Your task to perform on an android device: change the clock style Image 0: 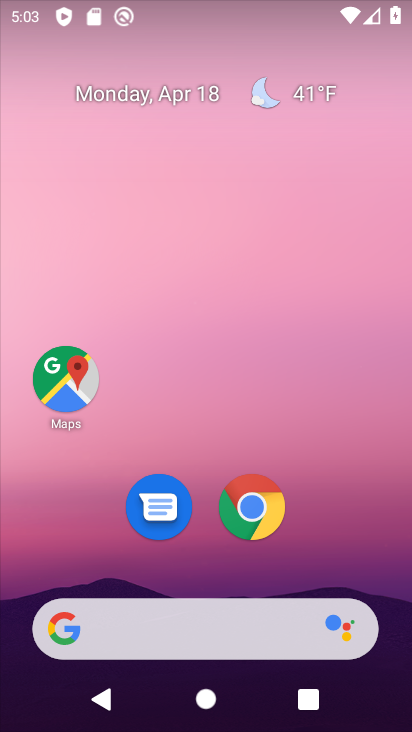
Step 0: drag from (347, 540) to (305, 11)
Your task to perform on an android device: change the clock style Image 1: 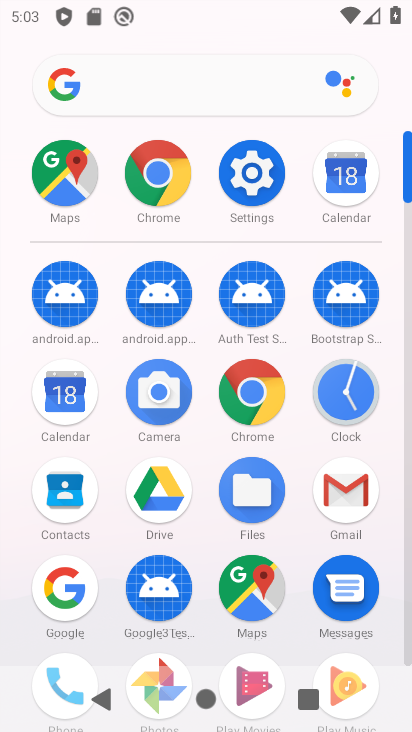
Step 1: click (348, 395)
Your task to perform on an android device: change the clock style Image 2: 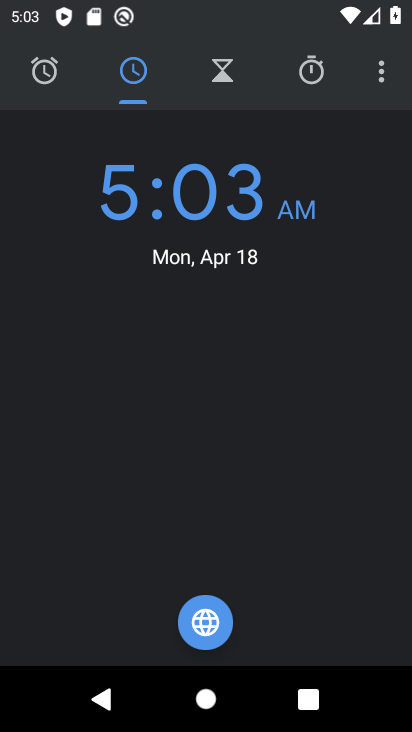
Step 2: click (376, 73)
Your task to perform on an android device: change the clock style Image 3: 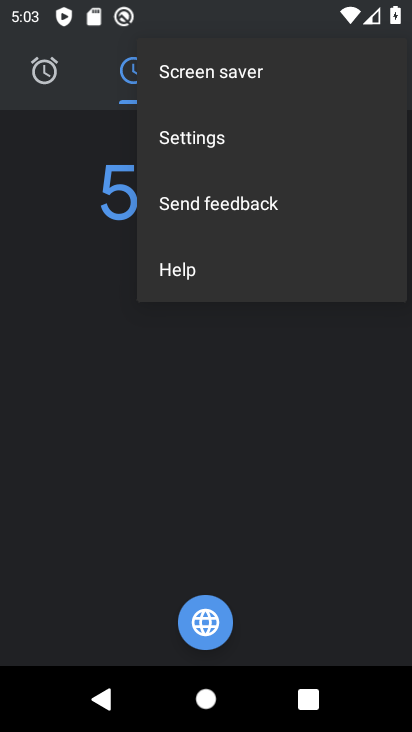
Step 3: click (222, 137)
Your task to perform on an android device: change the clock style Image 4: 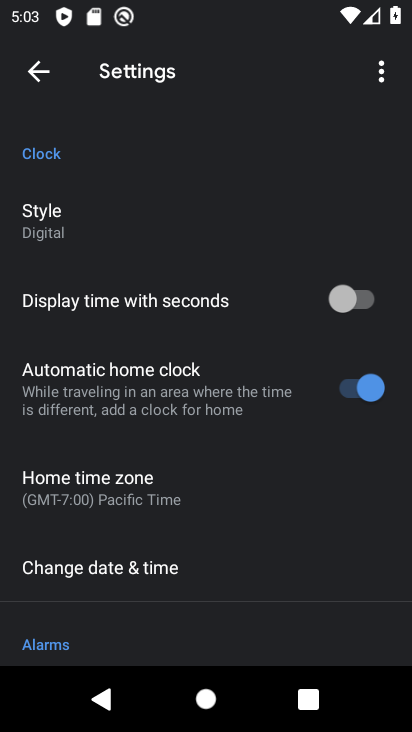
Step 4: click (153, 216)
Your task to perform on an android device: change the clock style Image 5: 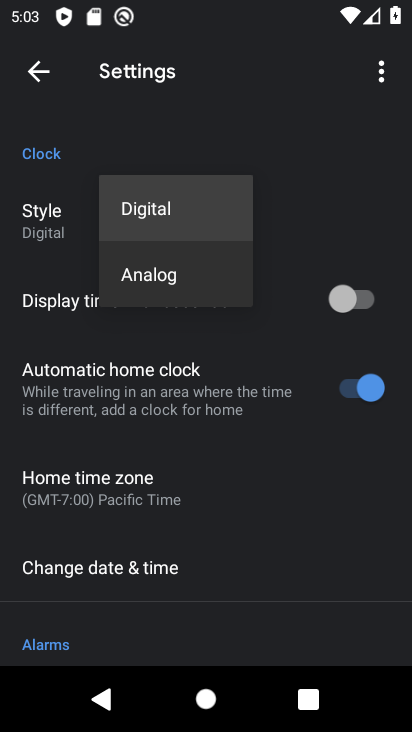
Step 5: click (166, 265)
Your task to perform on an android device: change the clock style Image 6: 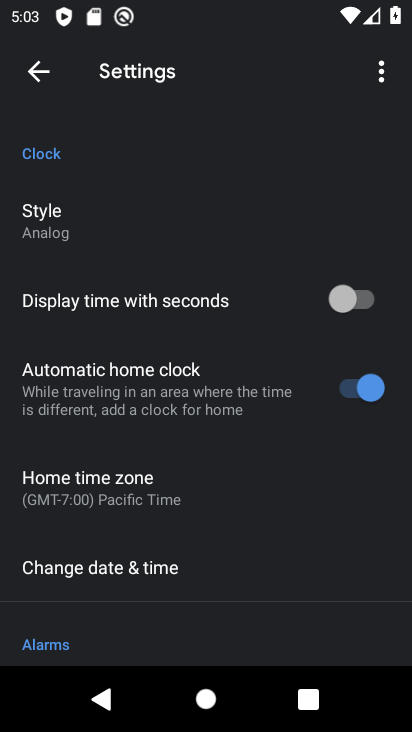
Step 6: task complete